Your task to perform on an android device: find photos in the google photos app Image 0: 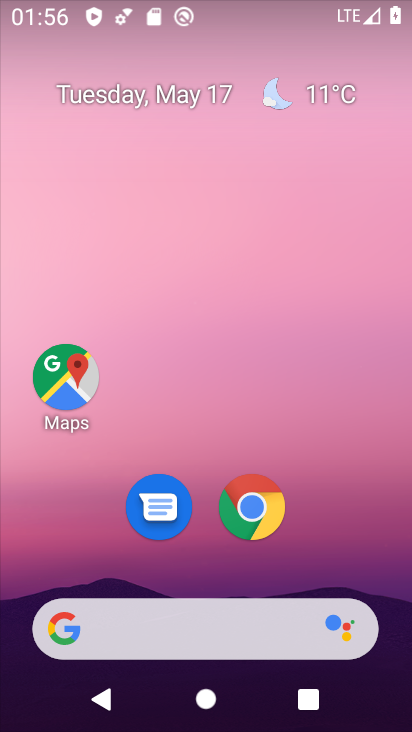
Step 0: drag from (206, 566) to (208, 382)
Your task to perform on an android device: find photos in the google photos app Image 1: 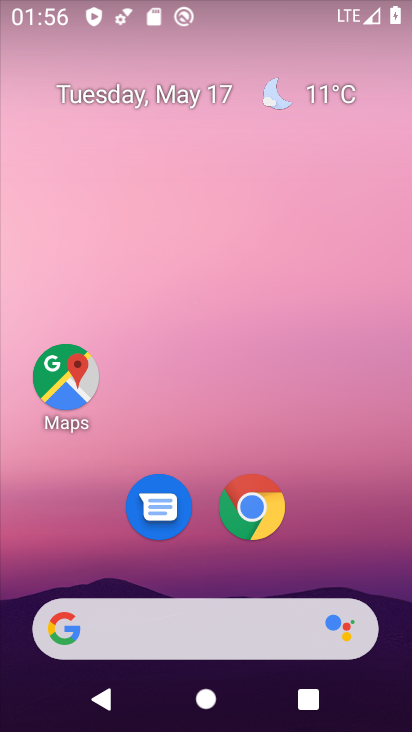
Step 1: drag from (203, 552) to (234, 152)
Your task to perform on an android device: find photos in the google photos app Image 2: 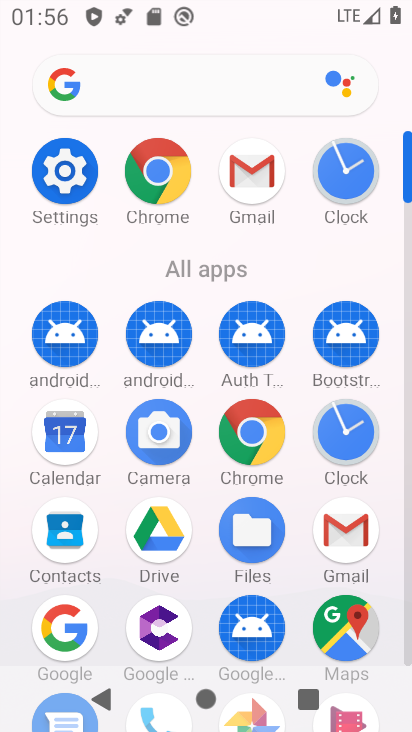
Step 2: drag from (206, 584) to (236, 212)
Your task to perform on an android device: find photos in the google photos app Image 3: 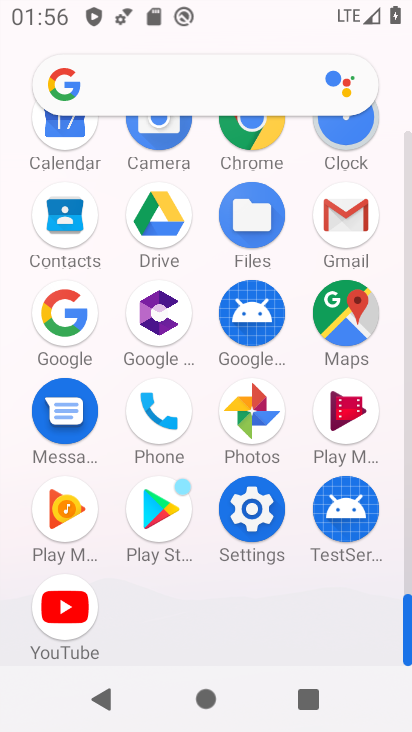
Step 3: click (255, 432)
Your task to perform on an android device: find photos in the google photos app Image 4: 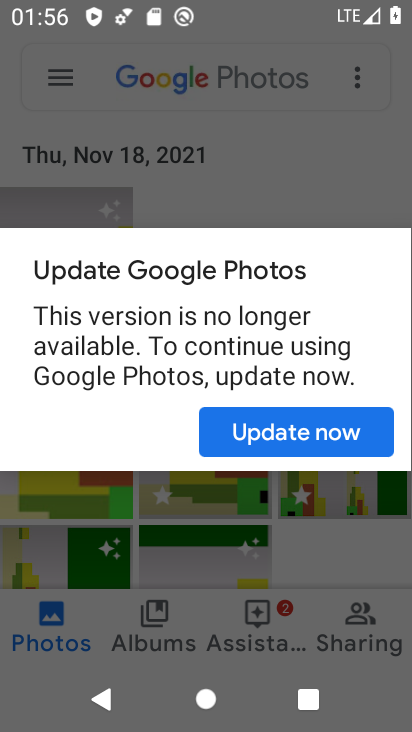
Step 4: task complete